Your task to perform on an android device: turn on showing notifications on the lock screen Image 0: 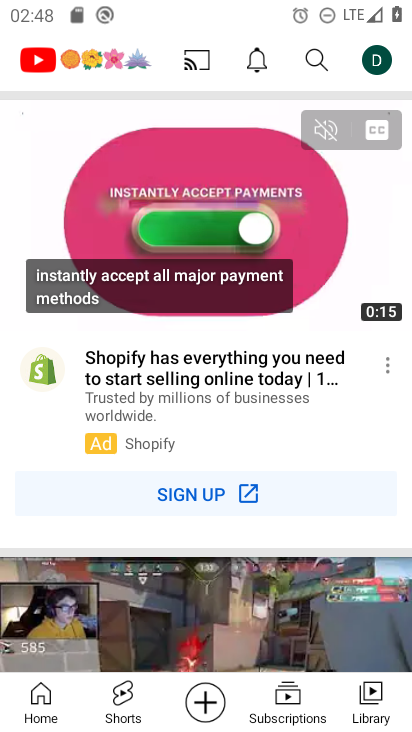
Step 0: press home button
Your task to perform on an android device: turn on showing notifications on the lock screen Image 1: 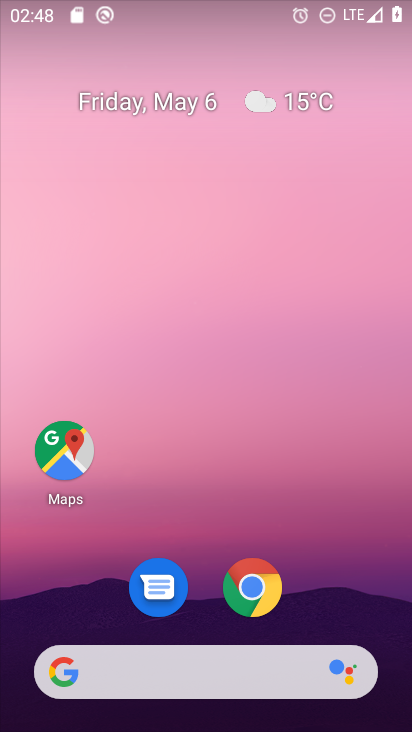
Step 1: drag from (335, 581) to (239, 20)
Your task to perform on an android device: turn on showing notifications on the lock screen Image 2: 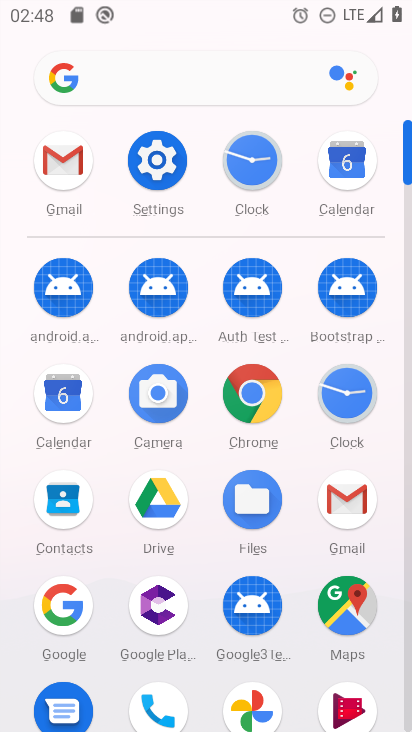
Step 2: click (157, 163)
Your task to perform on an android device: turn on showing notifications on the lock screen Image 3: 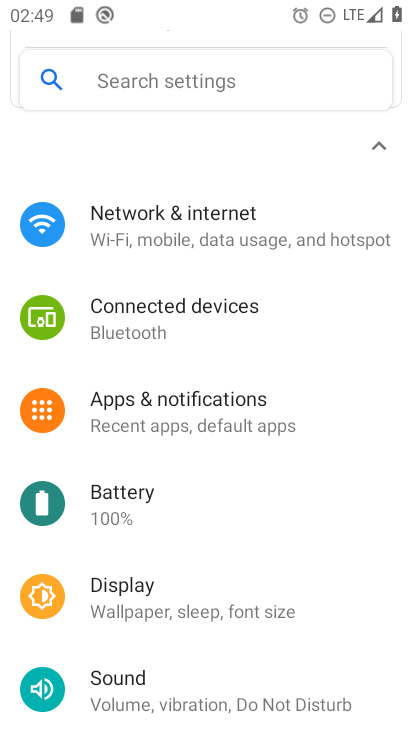
Step 3: click (154, 404)
Your task to perform on an android device: turn on showing notifications on the lock screen Image 4: 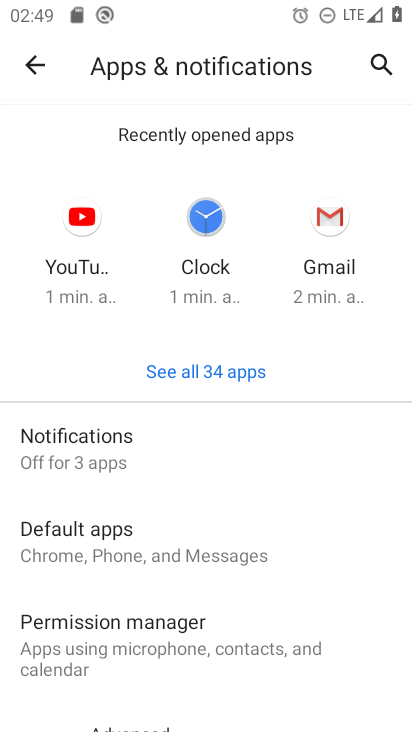
Step 4: click (134, 463)
Your task to perform on an android device: turn on showing notifications on the lock screen Image 5: 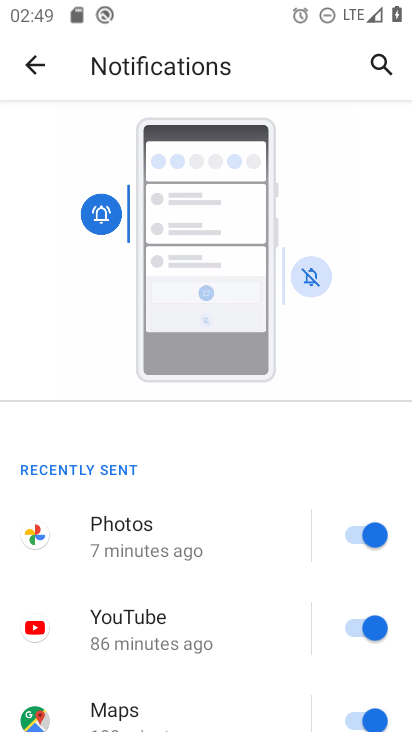
Step 5: drag from (209, 644) to (190, 125)
Your task to perform on an android device: turn on showing notifications on the lock screen Image 6: 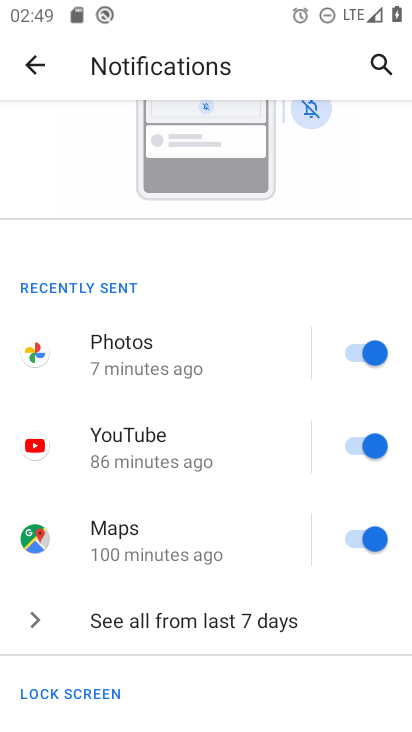
Step 6: drag from (189, 606) to (279, 193)
Your task to perform on an android device: turn on showing notifications on the lock screen Image 7: 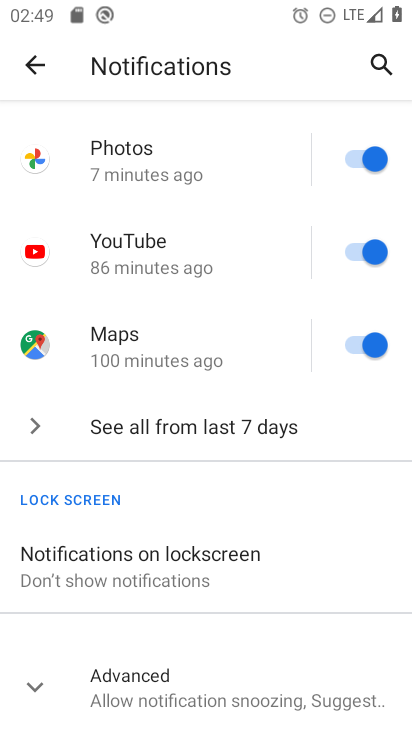
Step 7: click (166, 574)
Your task to perform on an android device: turn on showing notifications on the lock screen Image 8: 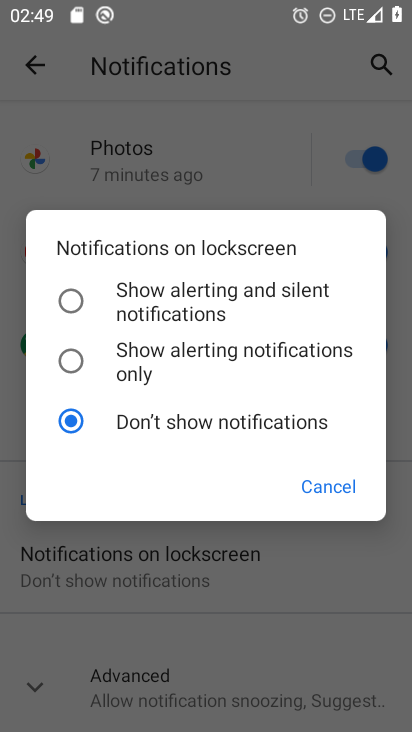
Step 8: click (126, 294)
Your task to perform on an android device: turn on showing notifications on the lock screen Image 9: 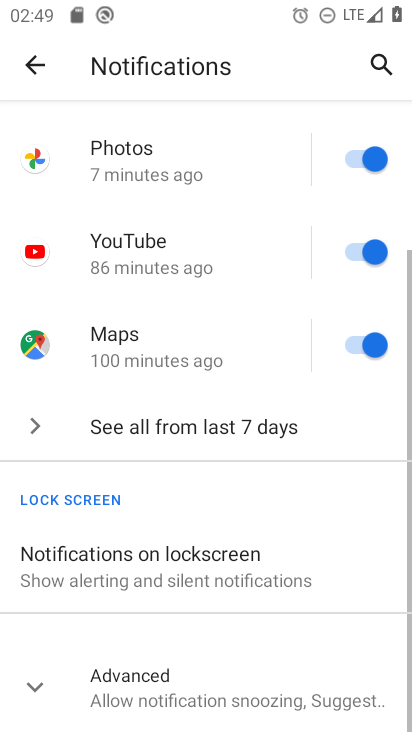
Step 9: task complete